Your task to perform on an android device: delete the emails in spam in the gmail app Image 0: 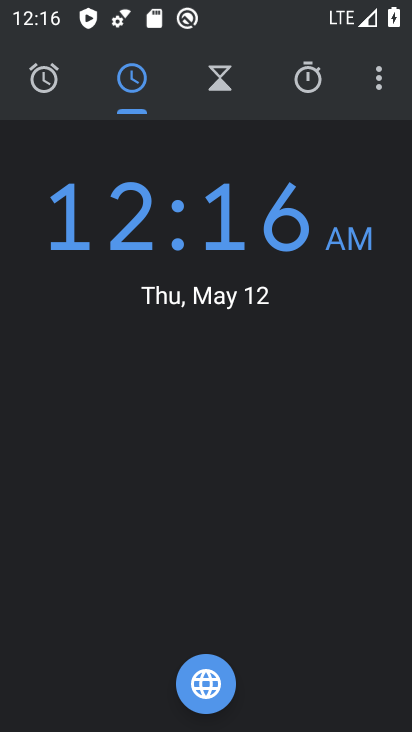
Step 0: press home button
Your task to perform on an android device: delete the emails in spam in the gmail app Image 1: 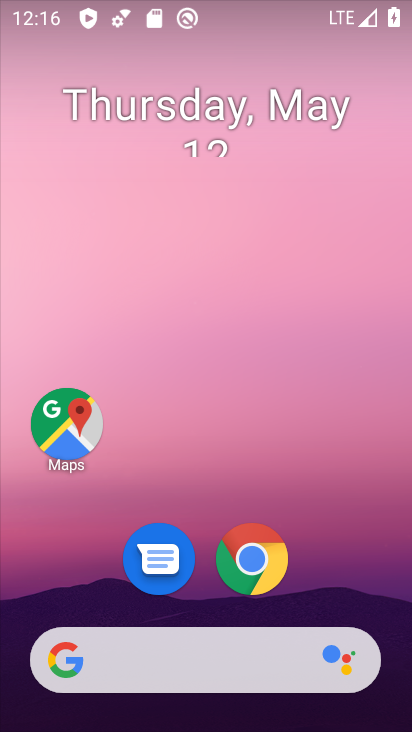
Step 1: drag from (122, 611) to (194, 198)
Your task to perform on an android device: delete the emails in spam in the gmail app Image 2: 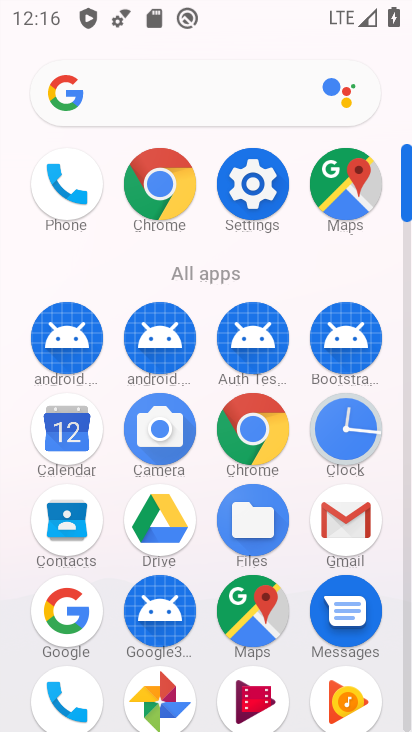
Step 2: click (341, 534)
Your task to perform on an android device: delete the emails in spam in the gmail app Image 3: 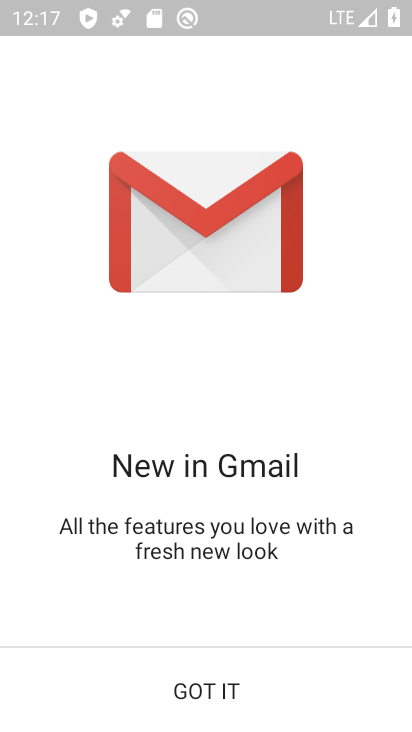
Step 3: click (246, 673)
Your task to perform on an android device: delete the emails in spam in the gmail app Image 4: 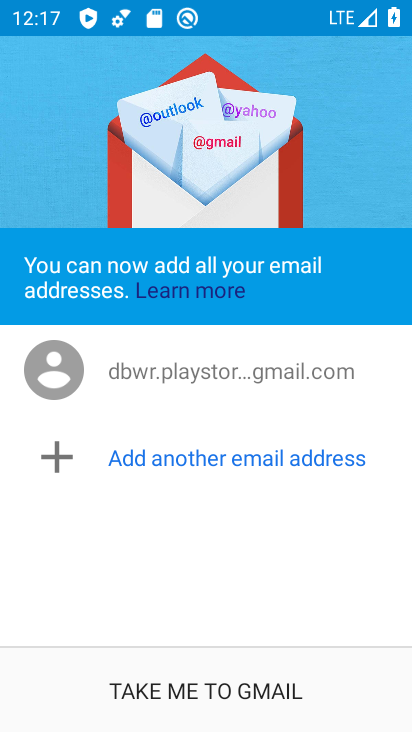
Step 4: click (238, 679)
Your task to perform on an android device: delete the emails in spam in the gmail app Image 5: 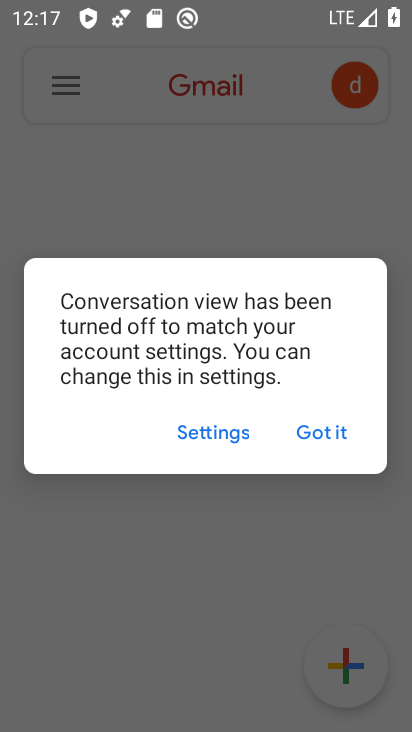
Step 5: click (336, 436)
Your task to perform on an android device: delete the emails in spam in the gmail app Image 6: 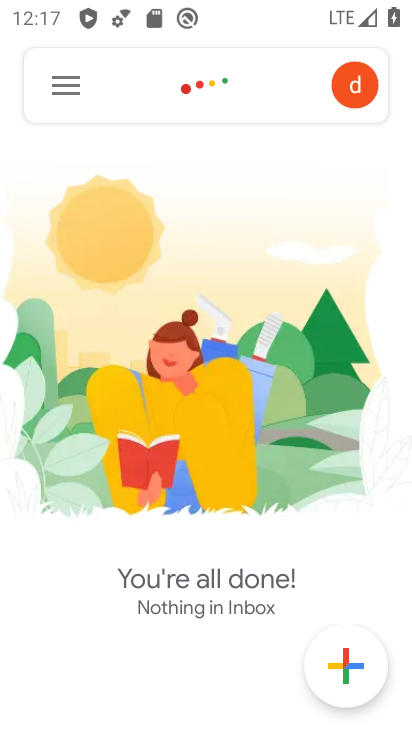
Step 6: click (72, 95)
Your task to perform on an android device: delete the emails in spam in the gmail app Image 7: 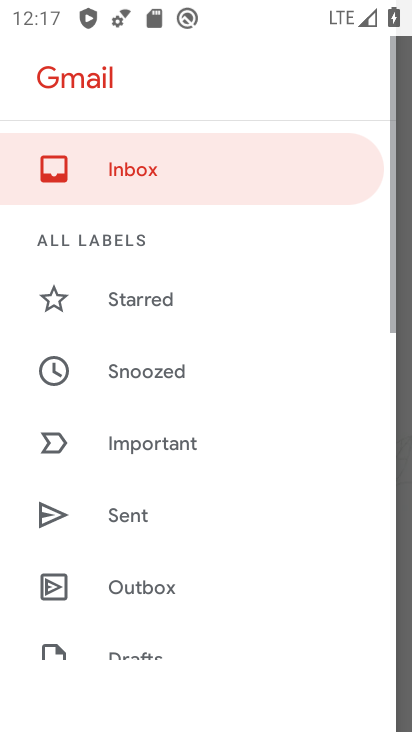
Step 7: drag from (150, 627) to (211, 337)
Your task to perform on an android device: delete the emails in spam in the gmail app Image 8: 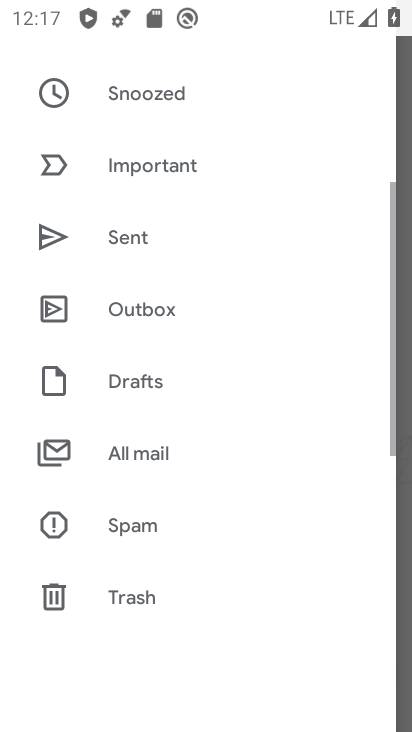
Step 8: click (184, 521)
Your task to perform on an android device: delete the emails in spam in the gmail app Image 9: 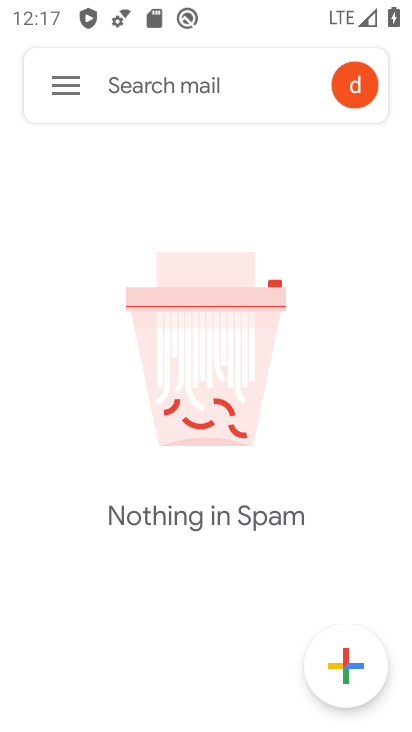
Step 9: task complete